Your task to perform on an android device: Go to Reddit.com Image 0: 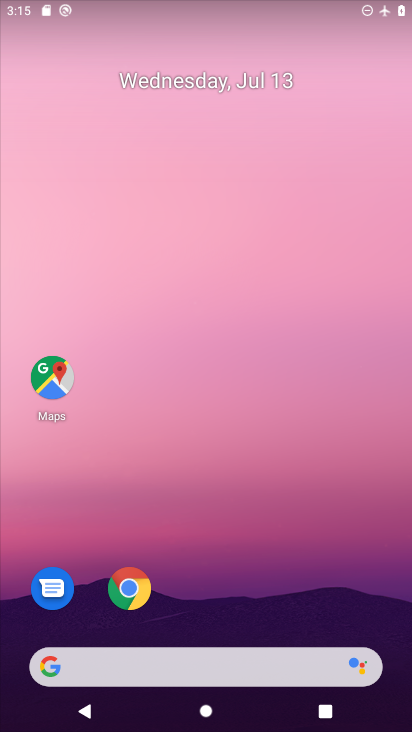
Step 0: click (129, 581)
Your task to perform on an android device: Go to Reddit.com Image 1: 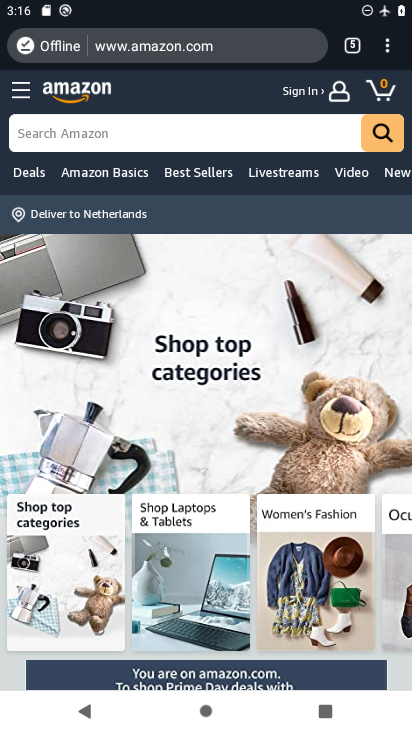
Step 1: click (350, 44)
Your task to perform on an android device: Go to Reddit.com Image 2: 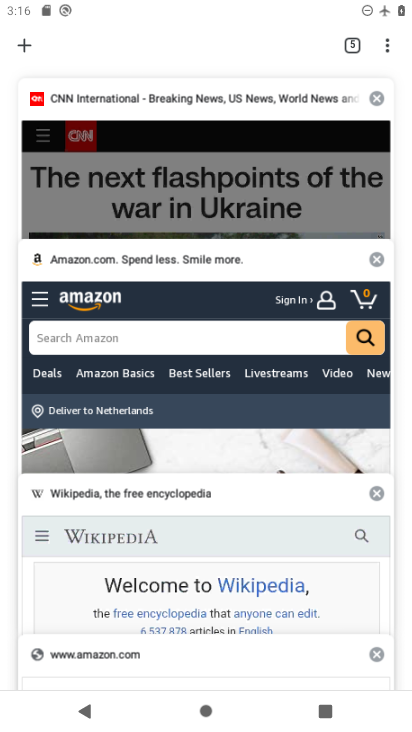
Step 2: click (18, 44)
Your task to perform on an android device: Go to Reddit.com Image 3: 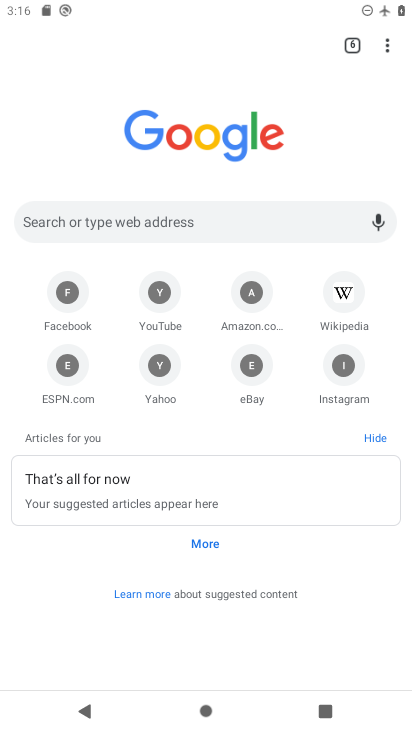
Step 3: click (156, 227)
Your task to perform on an android device: Go to Reddit.com Image 4: 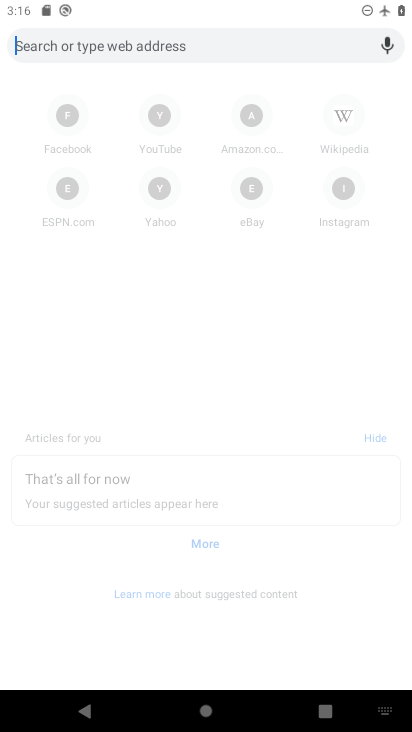
Step 4: type "Reddit.com"
Your task to perform on an android device: Go to Reddit.com Image 5: 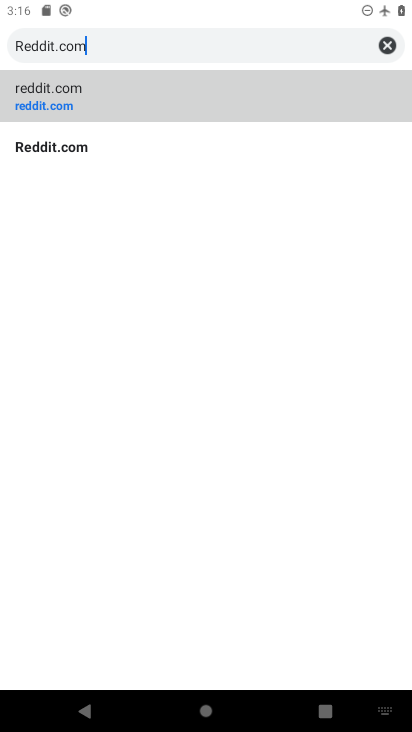
Step 5: type ""
Your task to perform on an android device: Go to Reddit.com Image 6: 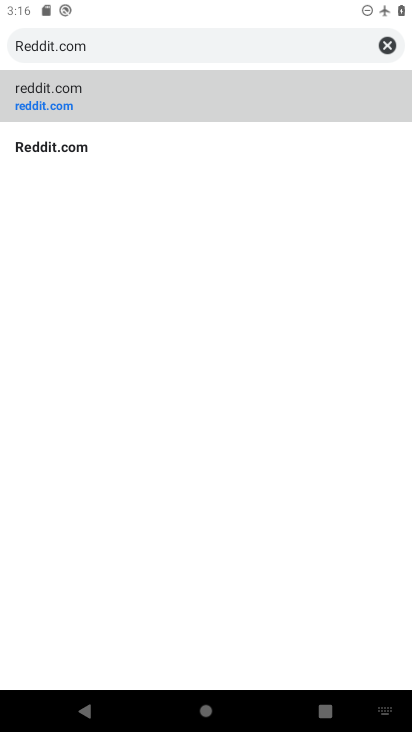
Step 6: click (205, 94)
Your task to perform on an android device: Go to Reddit.com Image 7: 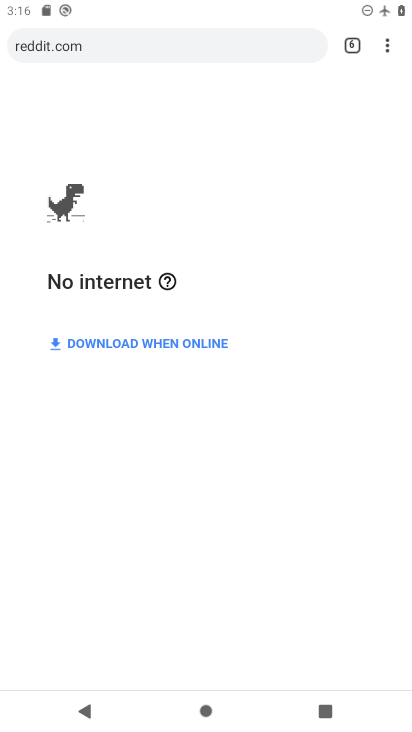
Step 7: task complete